Your task to perform on an android device: Open my contact list Image 0: 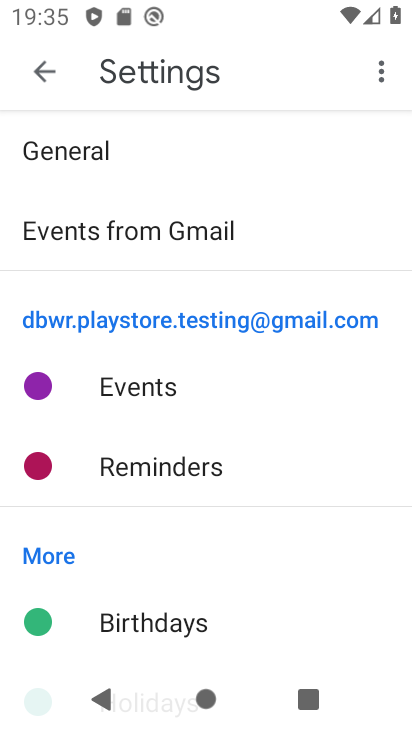
Step 0: press home button
Your task to perform on an android device: Open my contact list Image 1: 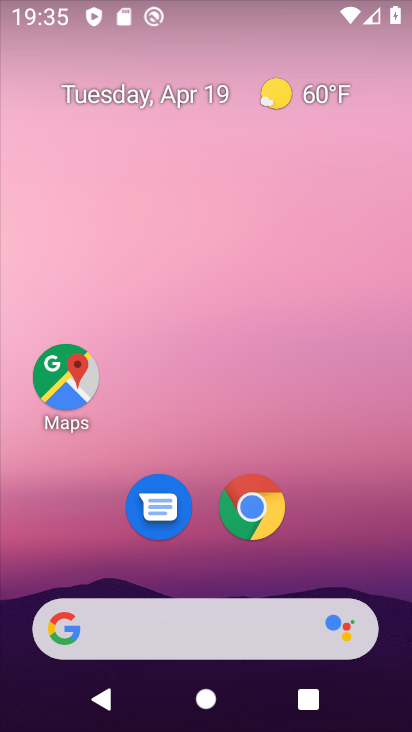
Step 1: drag from (350, 525) to (333, 97)
Your task to perform on an android device: Open my contact list Image 2: 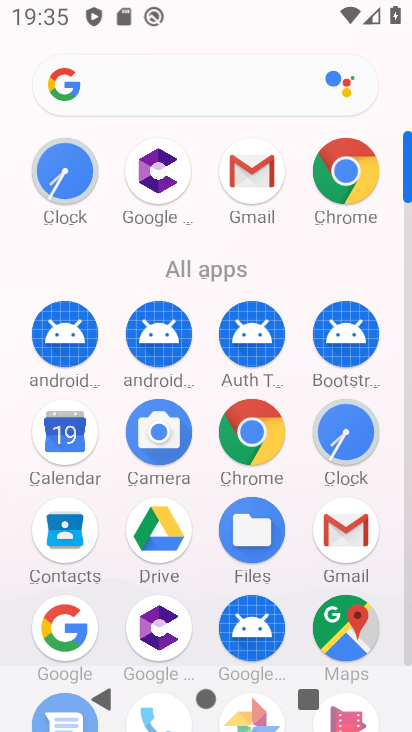
Step 2: click (75, 535)
Your task to perform on an android device: Open my contact list Image 3: 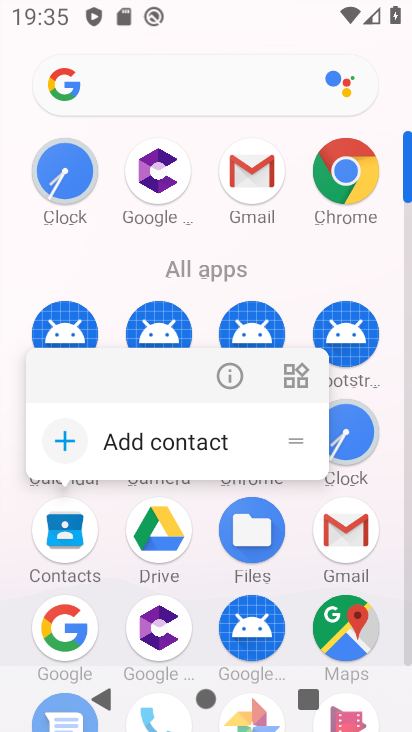
Step 3: click (75, 535)
Your task to perform on an android device: Open my contact list Image 4: 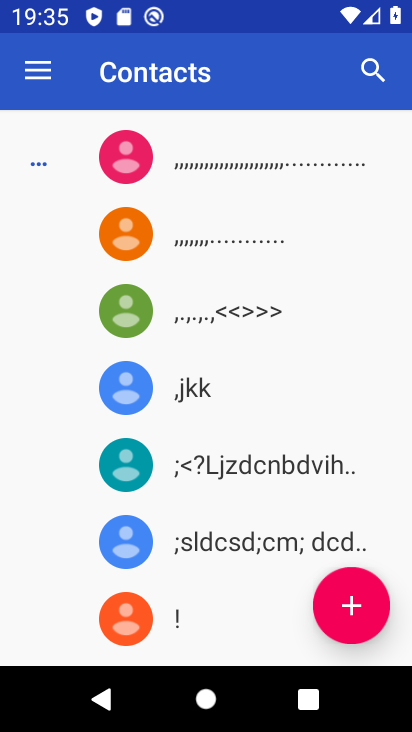
Step 4: task complete